Your task to perform on an android device: Go to location settings Image 0: 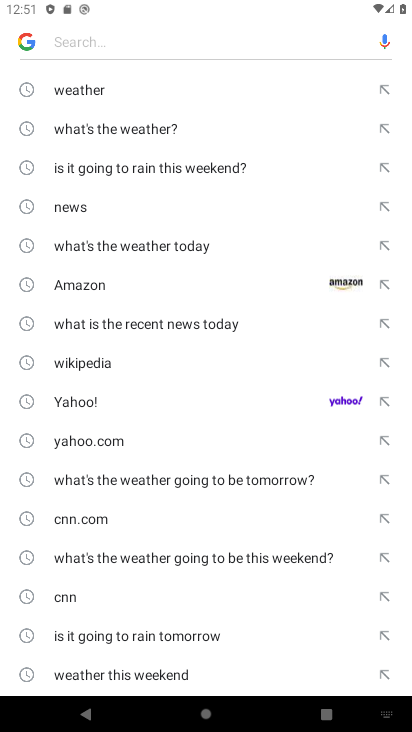
Step 0: press home button
Your task to perform on an android device: Go to location settings Image 1: 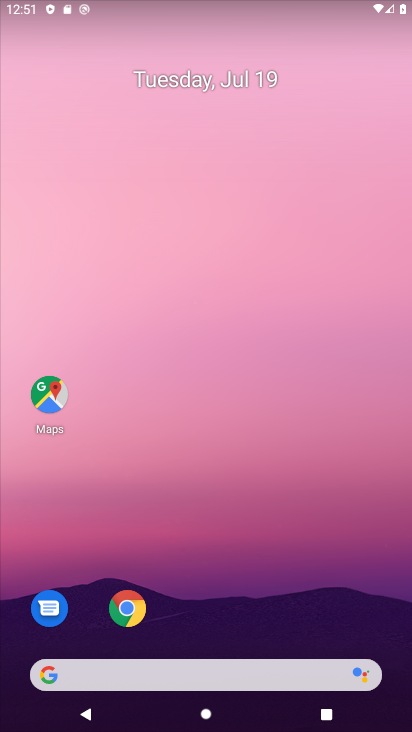
Step 1: drag from (272, 565) to (305, 199)
Your task to perform on an android device: Go to location settings Image 2: 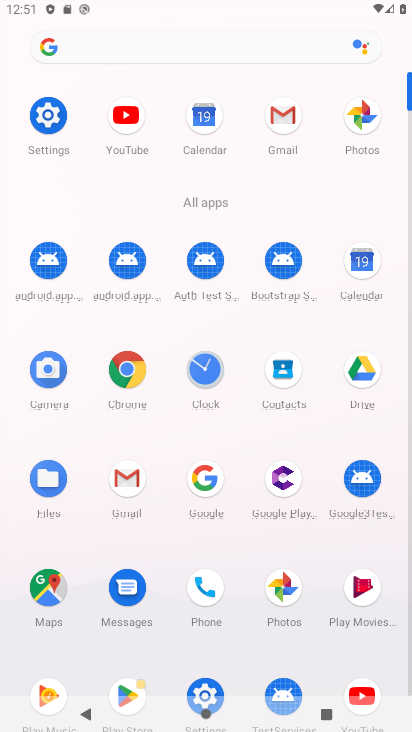
Step 2: click (207, 687)
Your task to perform on an android device: Go to location settings Image 3: 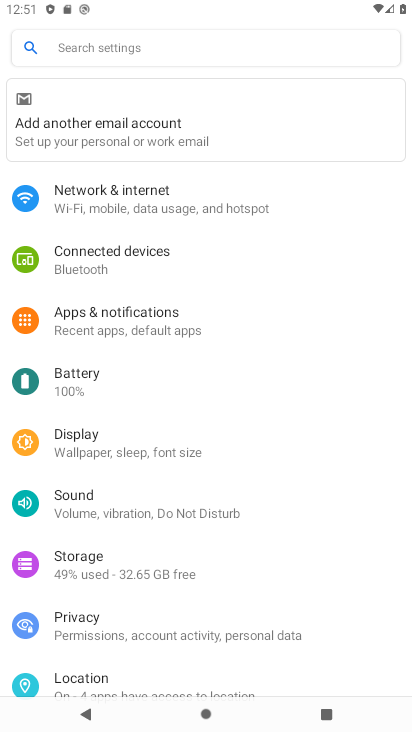
Step 3: click (91, 675)
Your task to perform on an android device: Go to location settings Image 4: 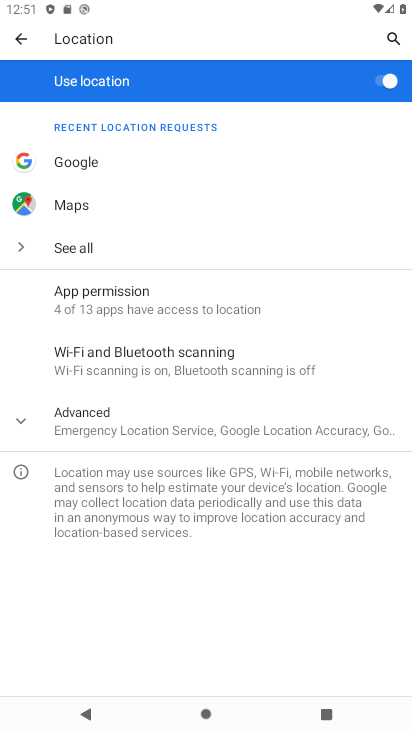
Step 4: task complete